Your task to perform on an android device: Go to CNN.com Image 0: 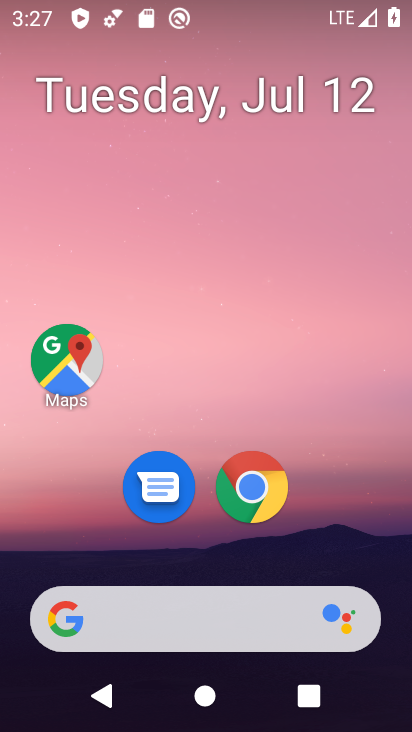
Step 0: drag from (197, 588) to (266, 69)
Your task to perform on an android device: Go to CNN.com Image 1: 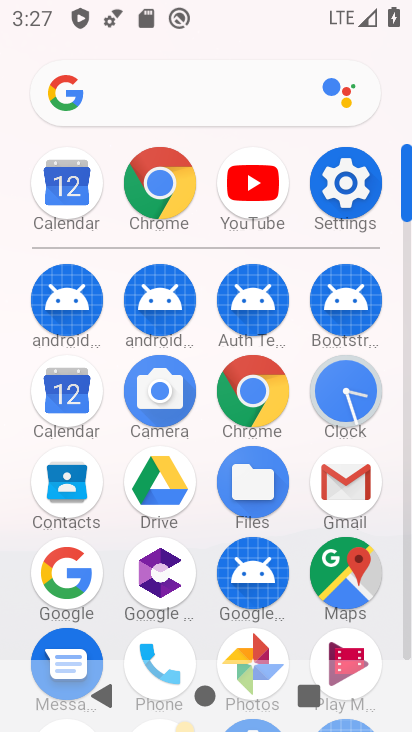
Step 1: click (169, 189)
Your task to perform on an android device: Go to CNN.com Image 2: 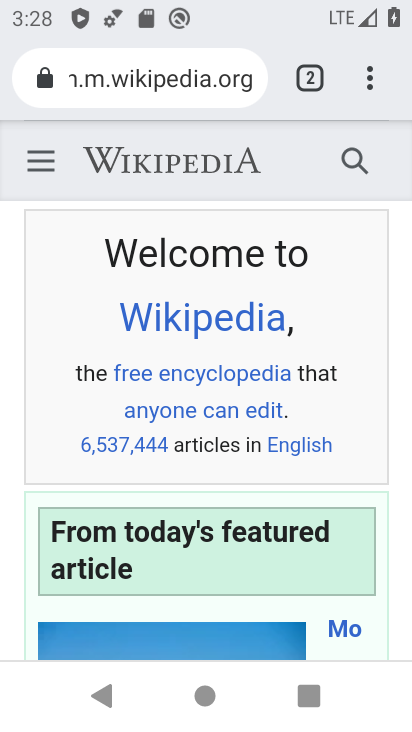
Step 2: click (209, 84)
Your task to perform on an android device: Go to CNN.com Image 3: 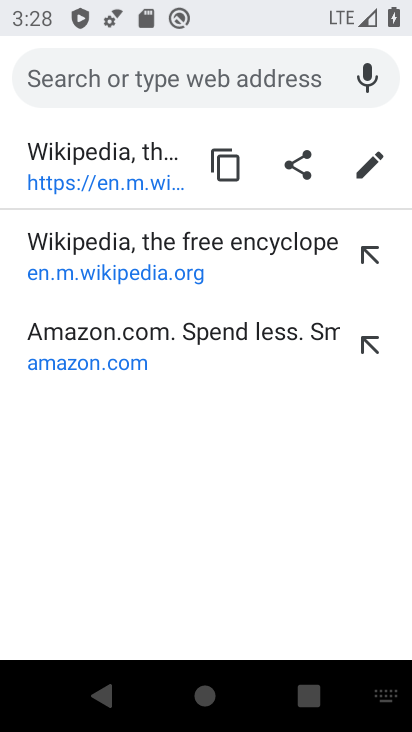
Step 3: type "cnn"
Your task to perform on an android device: Go to CNN.com Image 4: 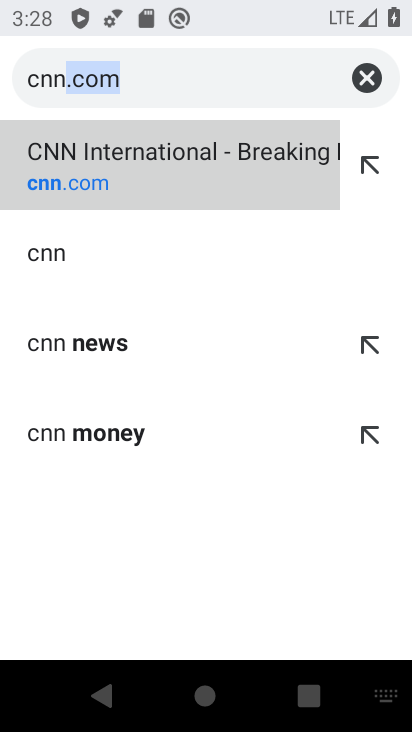
Step 4: click (239, 168)
Your task to perform on an android device: Go to CNN.com Image 5: 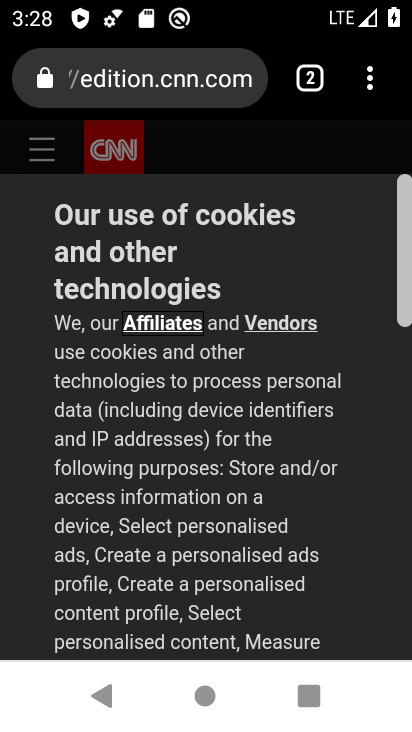
Step 5: task complete